Your task to perform on an android device: turn notification dots off Image 0: 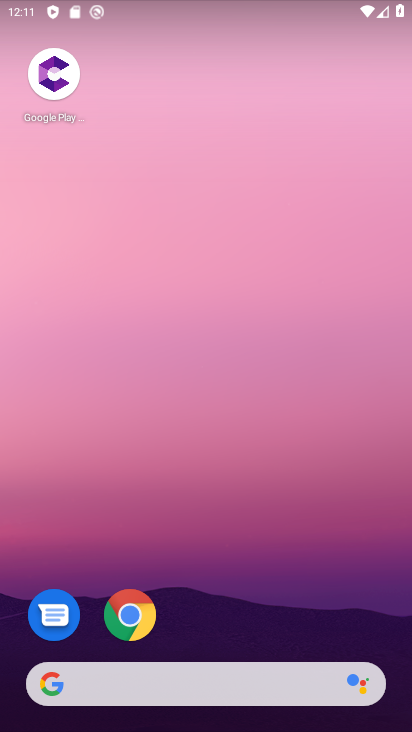
Step 0: drag from (292, 645) to (269, 70)
Your task to perform on an android device: turn notification dots off Image 1: 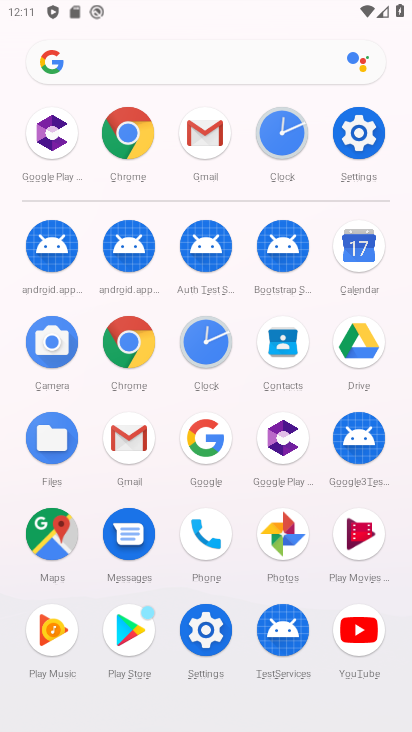
Step 1: click (211, 641)
Your task to perform on an android device: turn notification dots off Image 2: 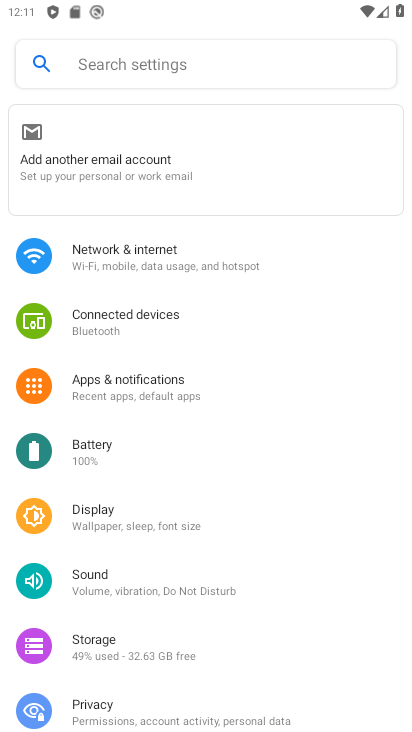
Step 2: drag from (248, 593) to (261, 356)
Your task to perform on an android device: turn notification dots off Image 3: 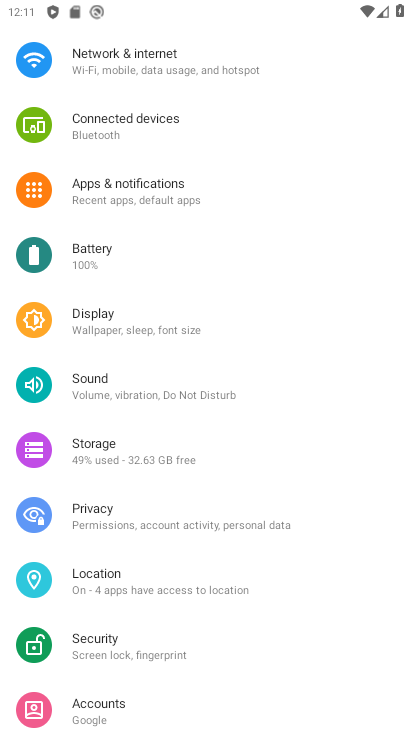
Step 3: click (185, 191)
Your task to perform on an android device: turn notification dots off Image 4: 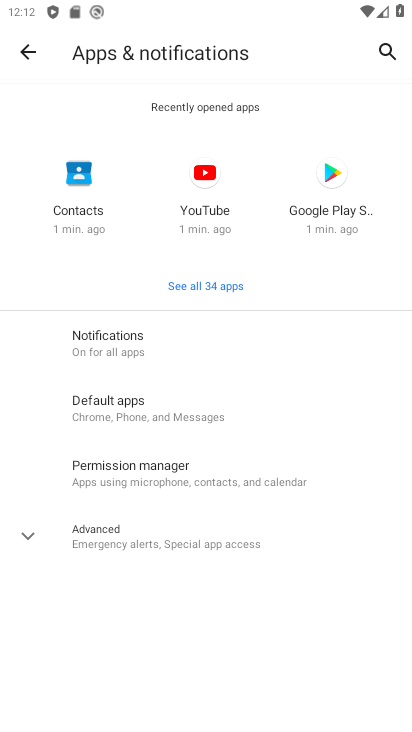
Step 4: click (111, 519)
Your task to perform on an android device: turn notification dots off Image 5: 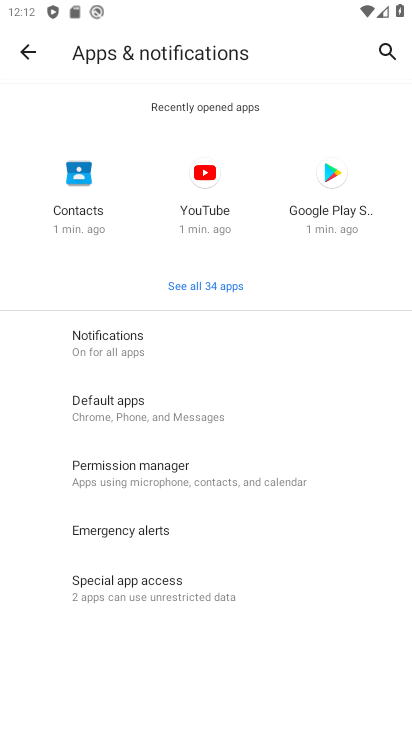
Step 5: click (171, 362)
Your task to perform on an android device: turn notification dots off Image 6: 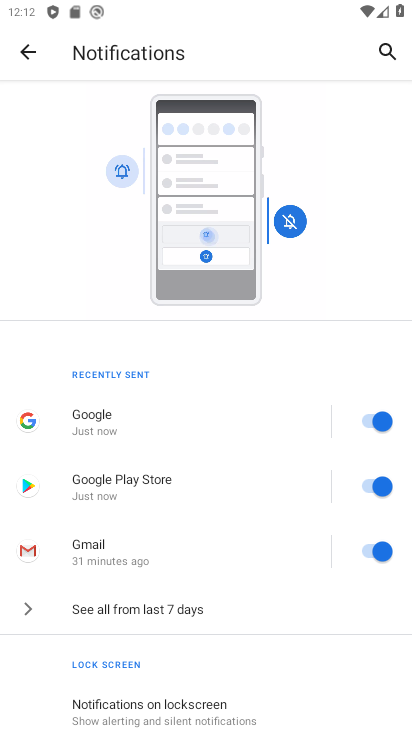
Step 6: click (242, 702)
Your task to perform on an android device: turn notification dots off Image 7: 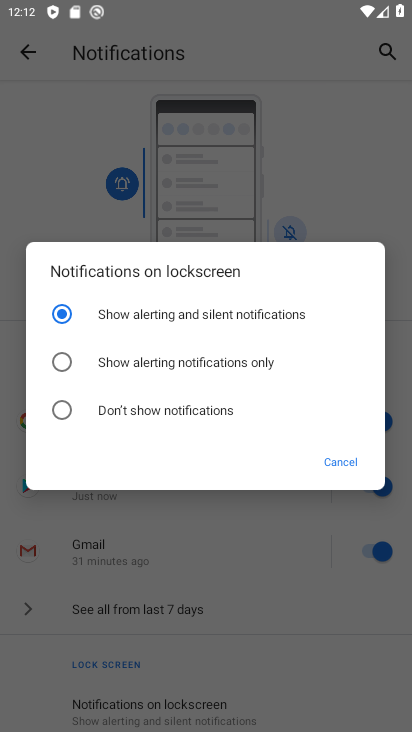
Step 7: click (317, 454)
Your task to perform on an android device: turn notification dots off Image 8: 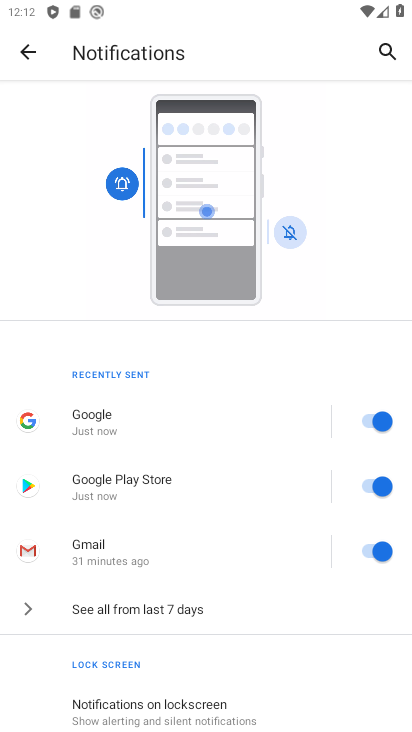
Step 8: drag from (301, 645) to (341, 269)
Your task to perform on an android device: turn notification dots off Image 9: 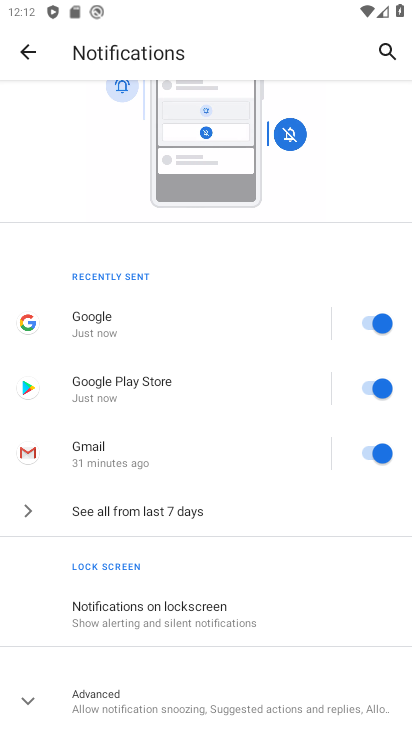
Step 9: click (221, 691)
Your task to perform on an android device: turn notification dots off Image 10: 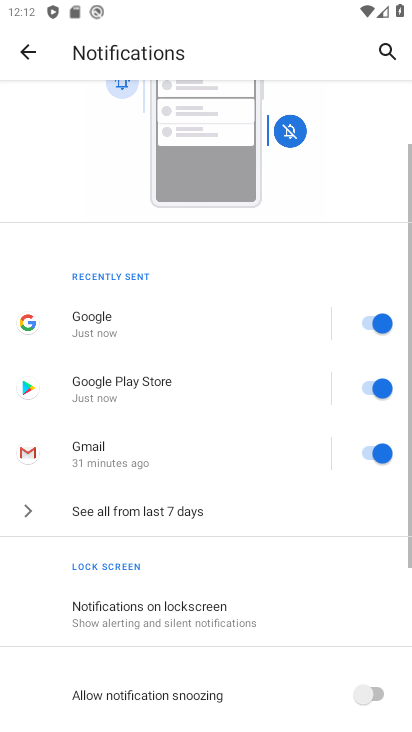
Step 10: drag from (296, 601) to (323, 255)
Your task to perform on an android device: turn notification dots off Image 11: 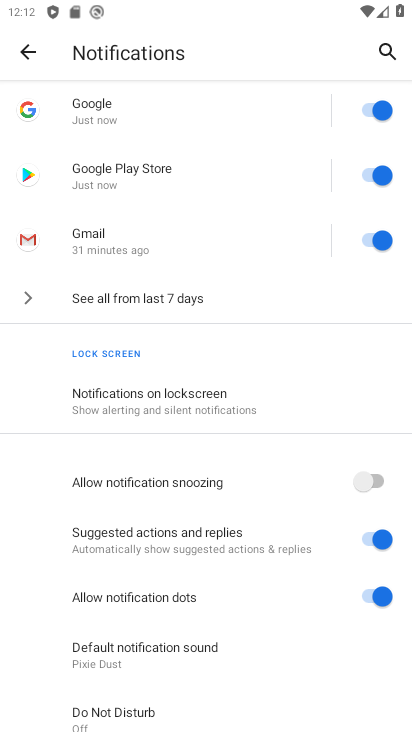
Step 11: click (373, 480)
Your task to perform on an android device: turn notification dots off Image 12: 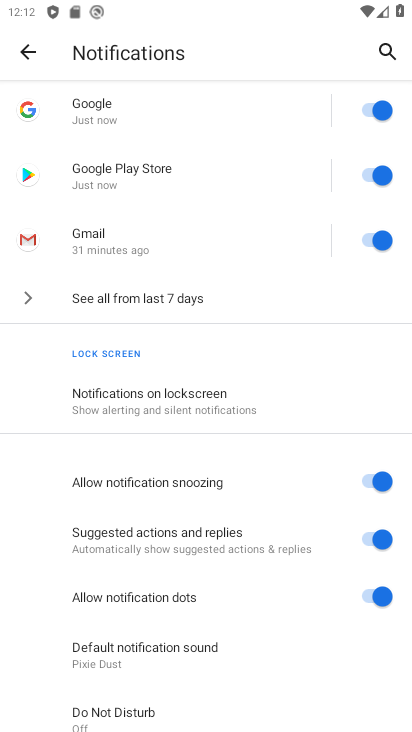
Step 12: click (399, 603)
Your task to perform on an android device: turn notification dots off Image 13: 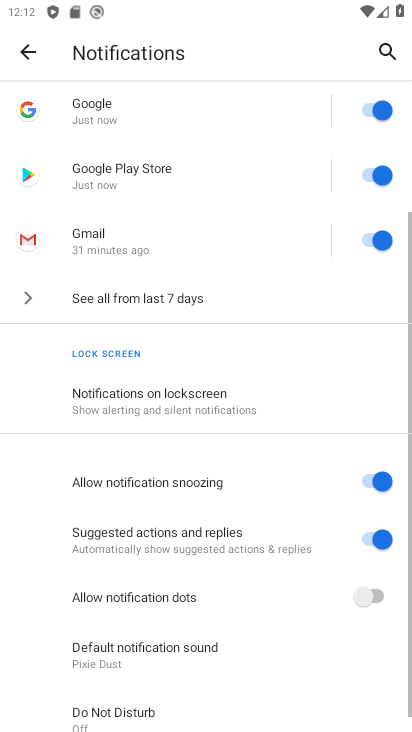
Step 13: task complete